Your task to perform on an android device: Go to network settings Image 0: 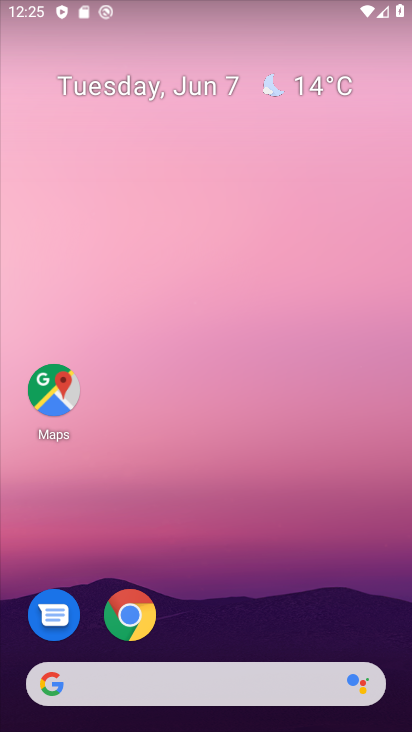
Step 0: drag from (260, 579) to (203, 25)
Your task to perform on an android device: Go to network settings Image 1: 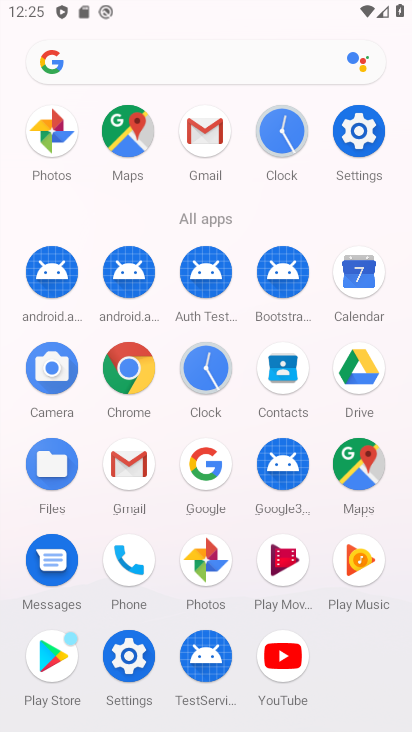
Step 1: click (358, 131)
Your task to perform on an android device: Go to network settings Image 2: 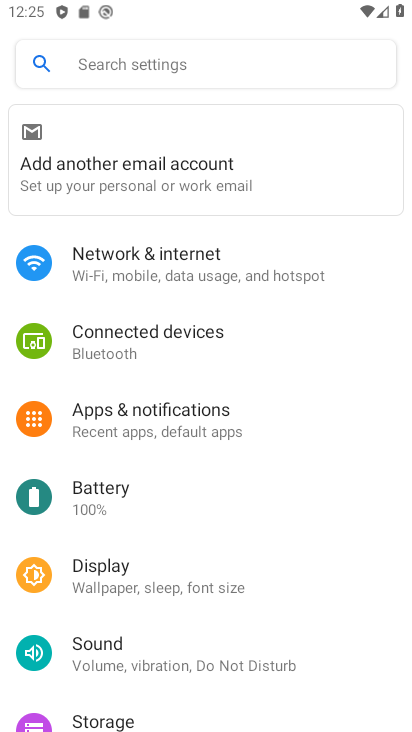
Step 2: click (203, 272)
Your task to perform on an android device: Go to network settings Image 3: 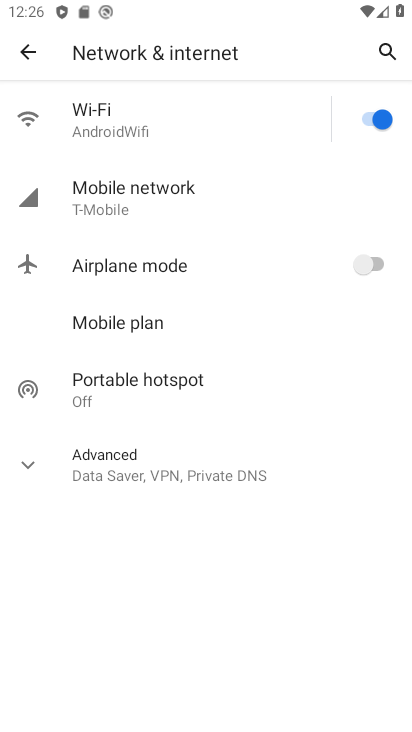
Step 3: click (118, 136)
Your task to perform on an android device: Go to network settings Image 4: 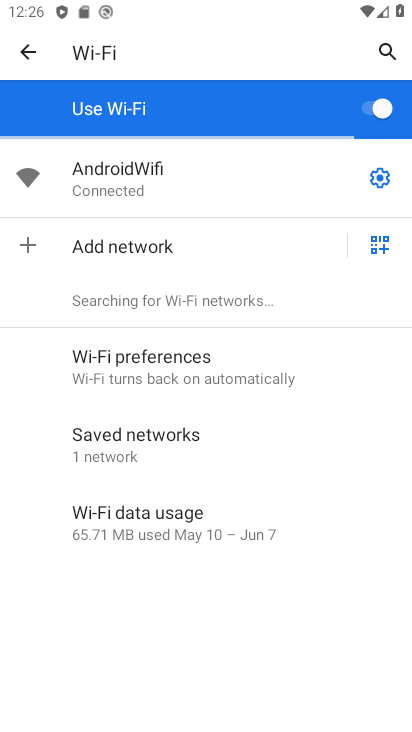
Step 4: task complete